Your task to perform on an android device: Go to display settings Image 0: 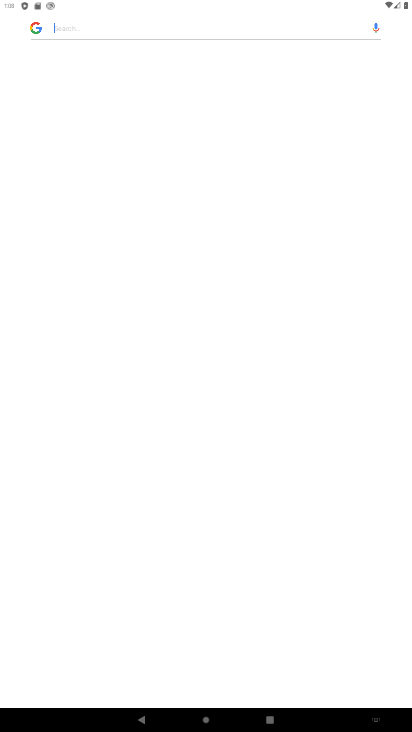
Step 0: press home button
Your task to perform on an android device: Go to display settings Image 1: 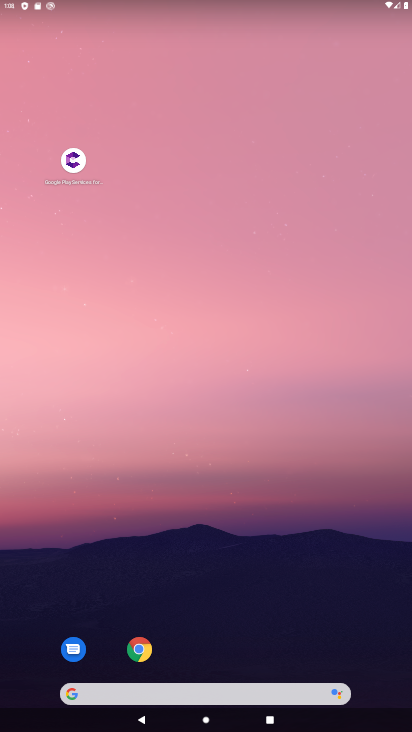
Step 1: drag from (235, 697) to (181, 124)
Your task to perform on an android device: Go to display settings Image 2: 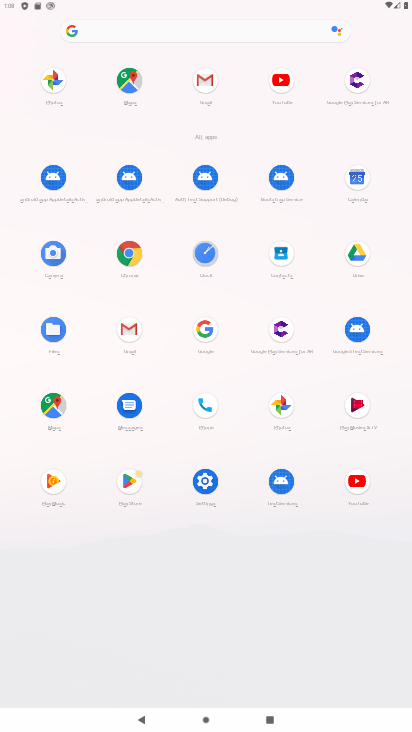
Step 2: click (208, 479)
Your task to perform on an android device: Go to display settings Image 3: 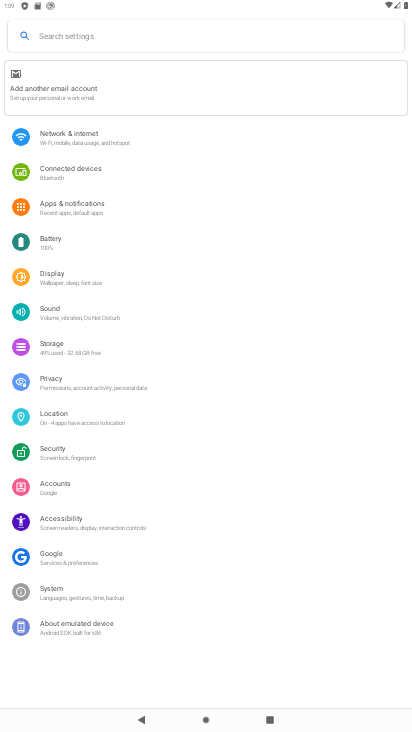
Step 3: click (76, 32)
Your task to perform on an android device: Go to display settings Image 4: 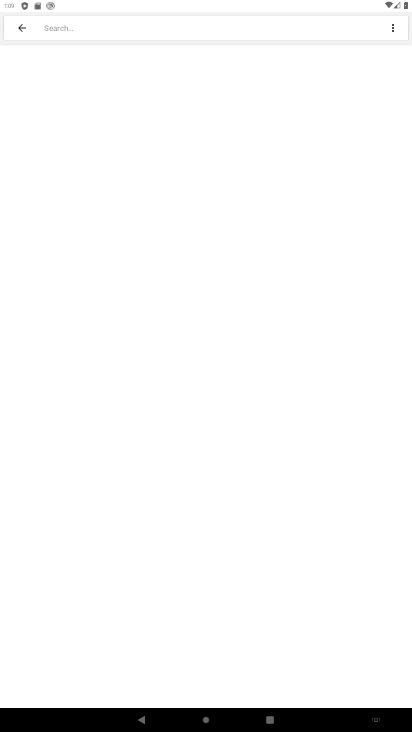
Step 4: click (367, 725)
Your task to perform on an android device: Go to display settings Image 5: 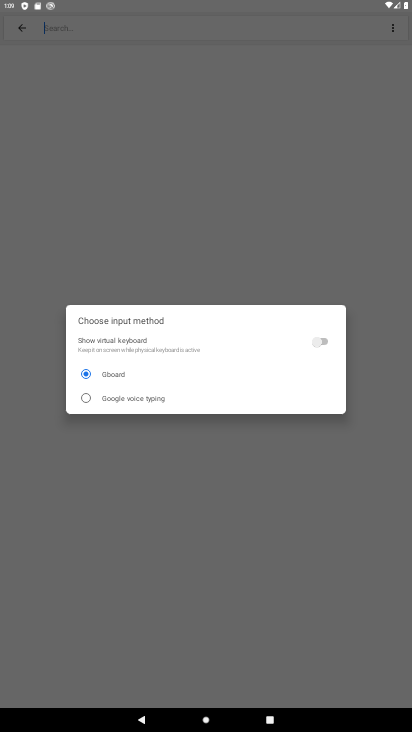
Step 5: click (321, 342)
Your task to perform on an android device: Go to display settings Image 6: 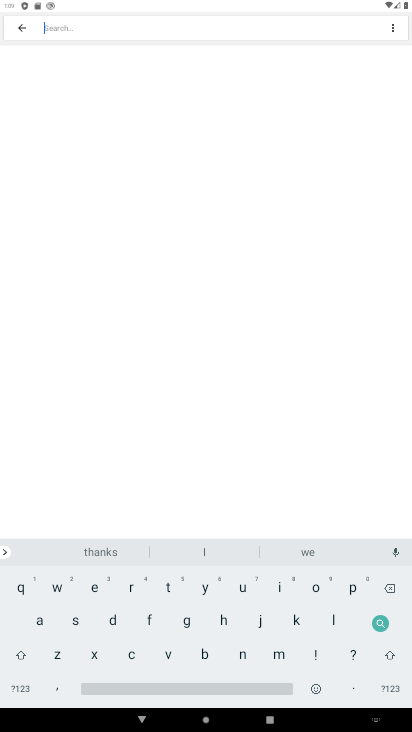
Step 6: click (105, 618)
Your task to perform on an android device: Go to display settings Image 7: 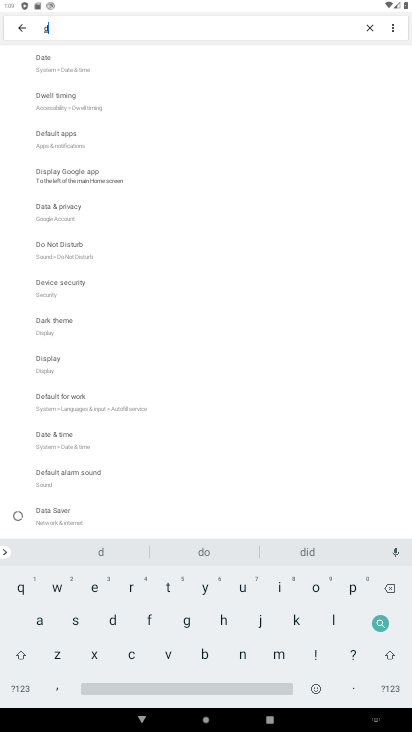
Step 7: click (279, 581)
Your task to perform on an android device: Go to display settings Image 8: 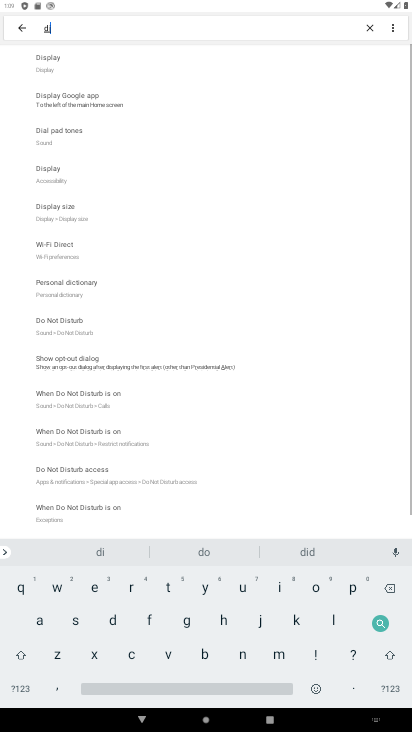
Step 8: click (75, 622)
Your task to perform on an android device: Go to display settings Image 9: 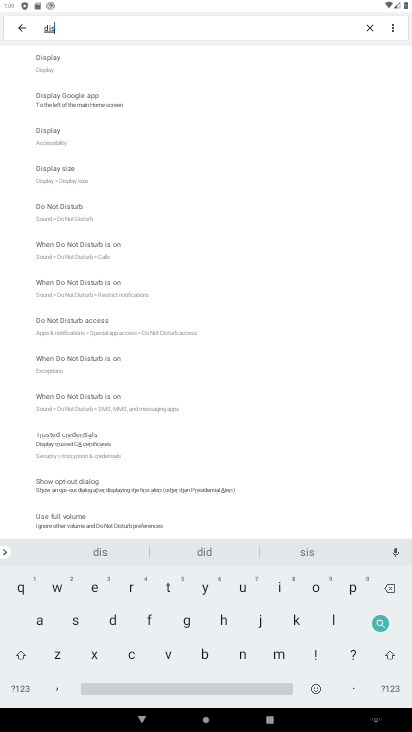
Step 9: click (69, 54)
Your task to perform on an android device: Go to display settings Image 10: 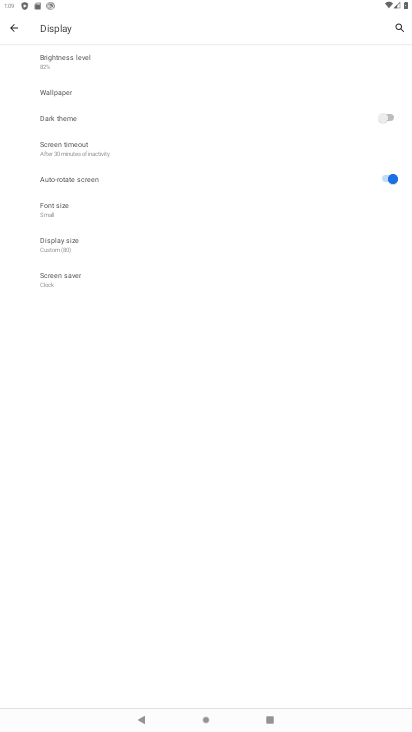
Step 10: task complete